Your task to perform on an android device: Open sound settings Image 0: 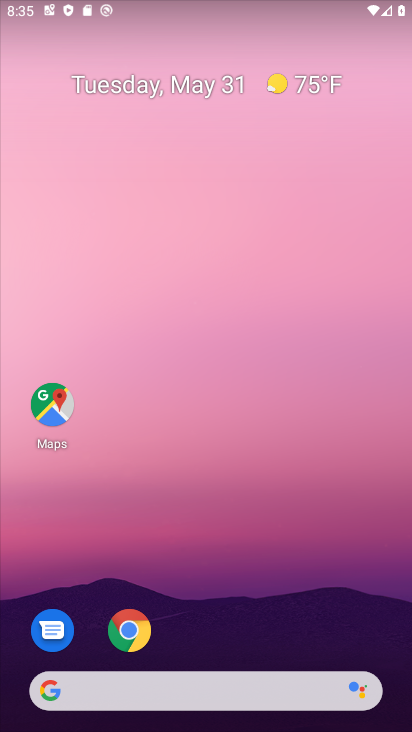
Step 0: drag from (203, 628) to (262, 193)
Your task to perform on an android device: Open sound settings Image 1: 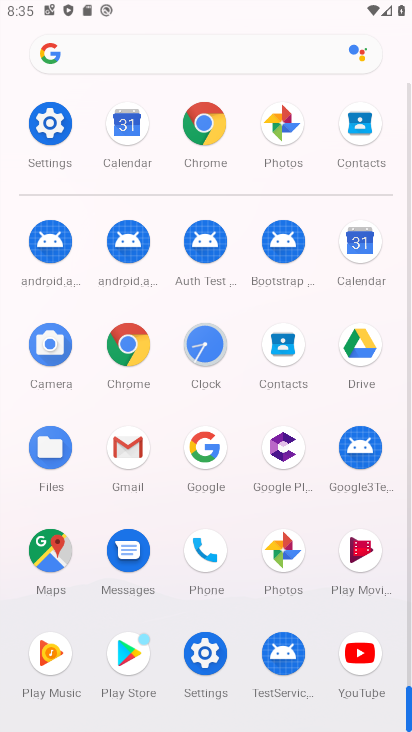
Step 1: click (210, 662)
Your task to perform on an android device: Open sound settings Image 2: 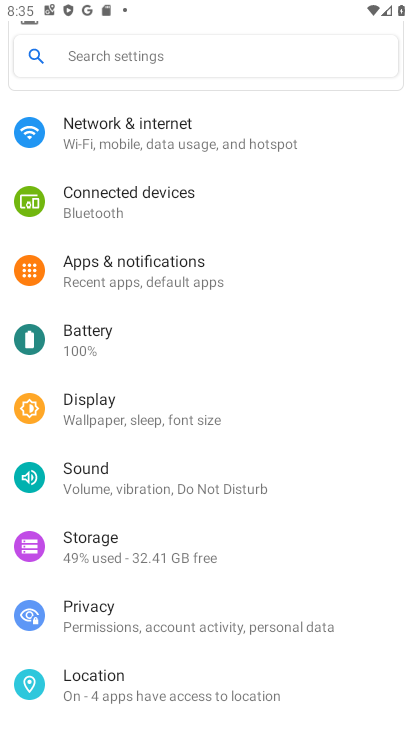
Step 2: click (126, 488)
Your task to perform on an android device: Open sound settings Image 3: 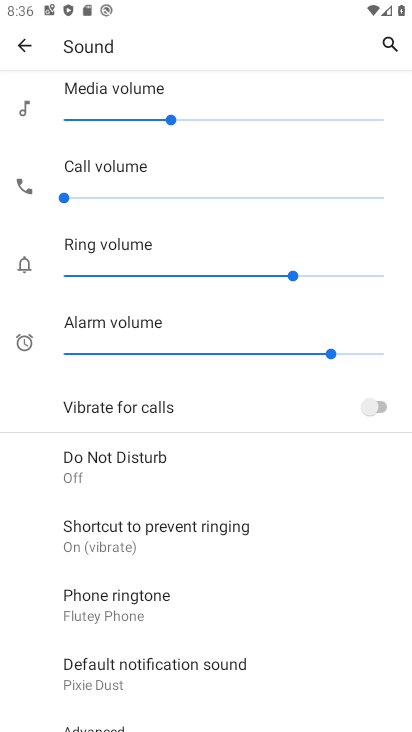
Step 3: task complete